Your task to perform on an android device: Open eBay Image 0: 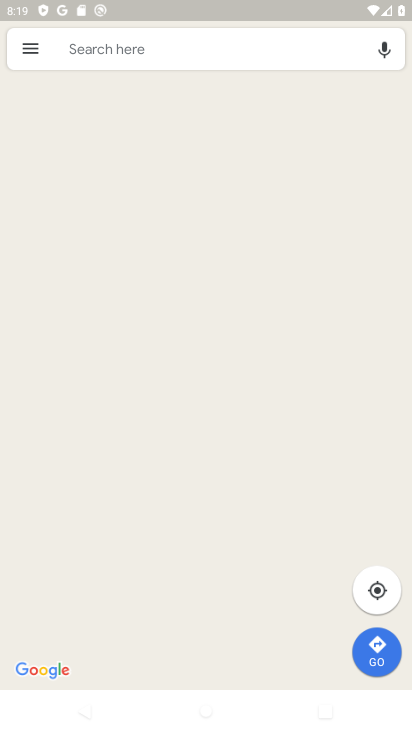
Step 0: drag from (288, 599) to (193, 184)
Your task to perform on an android device: Open eBay Image 1: 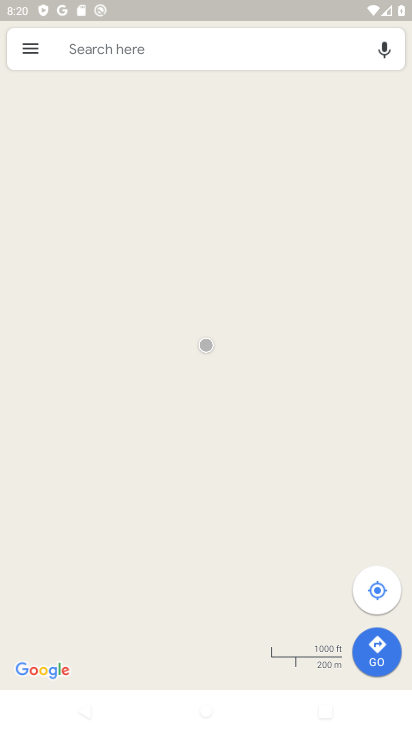
Step 1: press back button
Your task to perform on an android device: Open eBay Image 2: 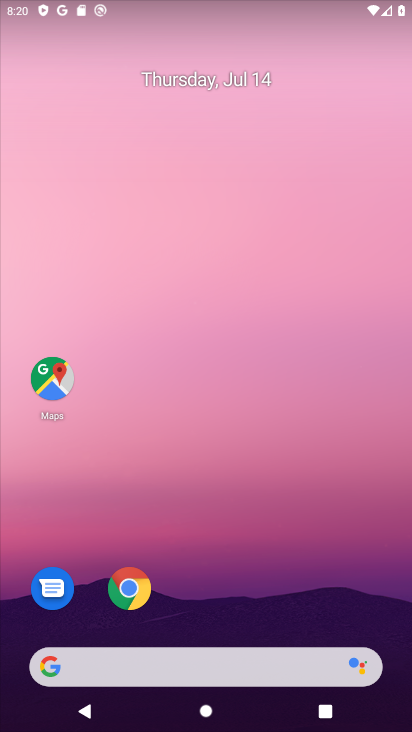
Step 2: drag from (218, 348) to (198, 216)
Your task to perform on an android device: Open eBay Image 3: 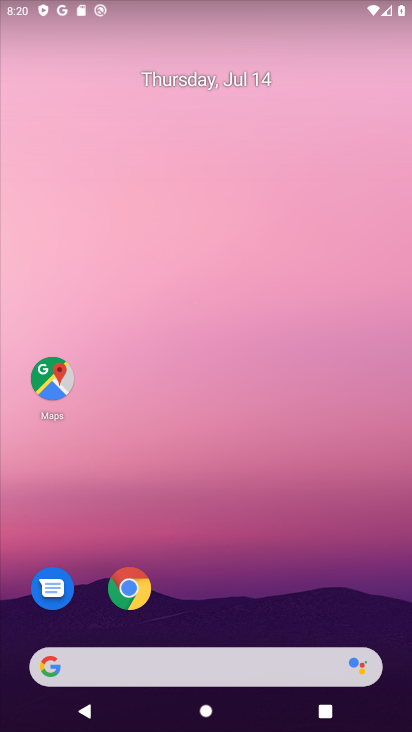
Step 3: drag from (222, 606) to (178, 182)
Your task to perform on an android device: Open eBay Image 4: 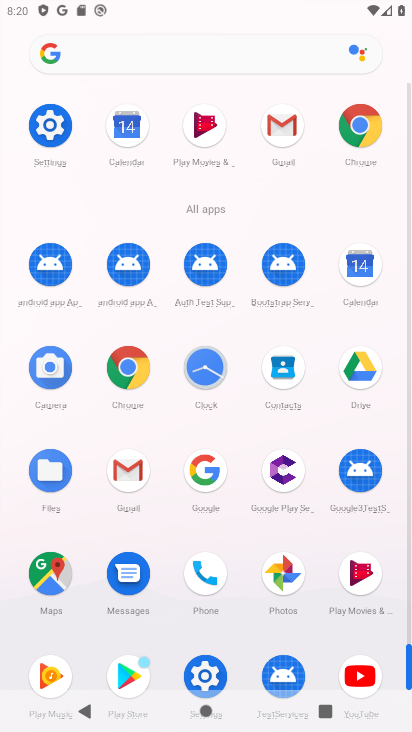
Step 4: click (375, 117)
Your task to perform on an android device: Open eBay Image 5: 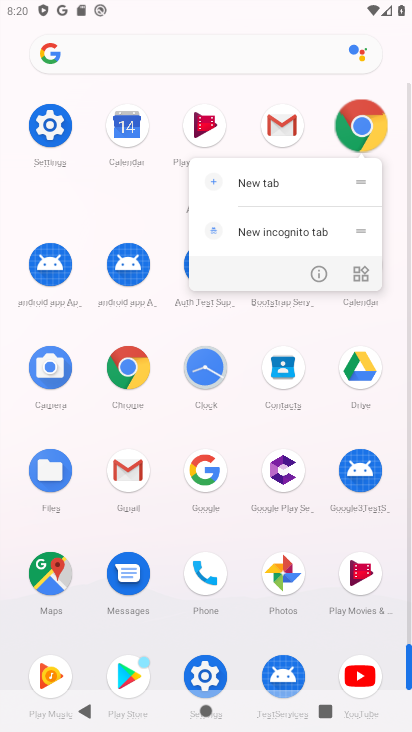
Step 5: click (374, 116)
Your task to perform on an android device: Open eBay Image 6: 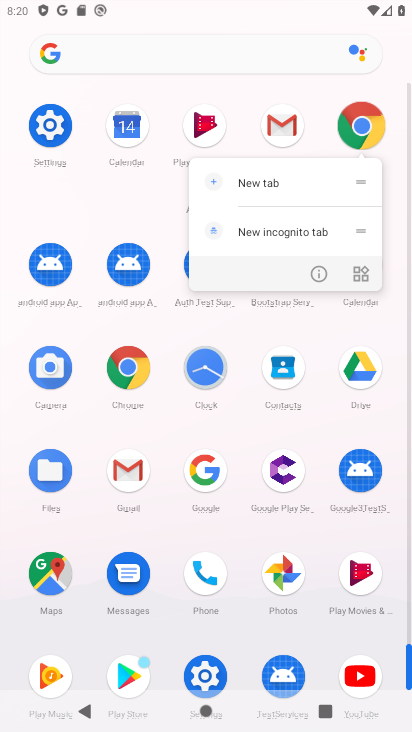
Step 6: click (374, 116)
Your task to perform on an android device: Open eBay Image 7: 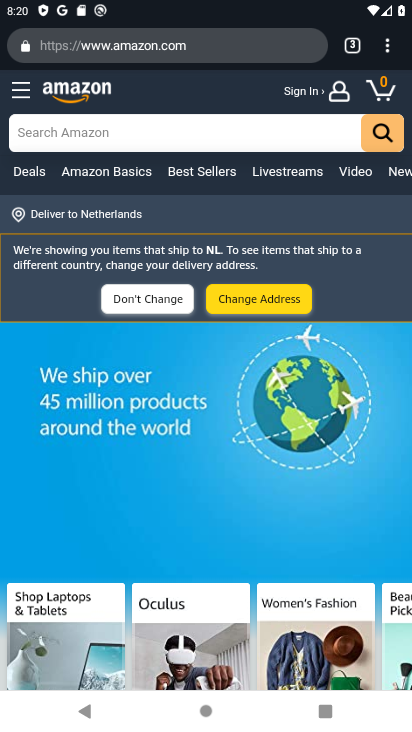
Step 7: click (261, 96)
Your task to perform on an android device: Open eBay Image 8: 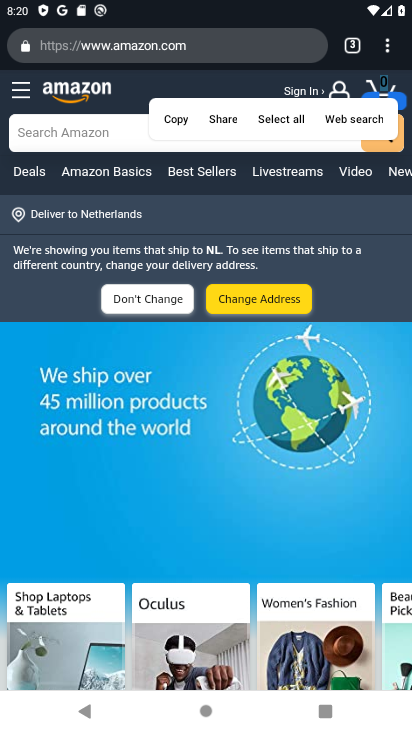
Step 8: drag from (381, 42) to (235, 80)
Your task to perform on an android device: Open eBay Image 9: 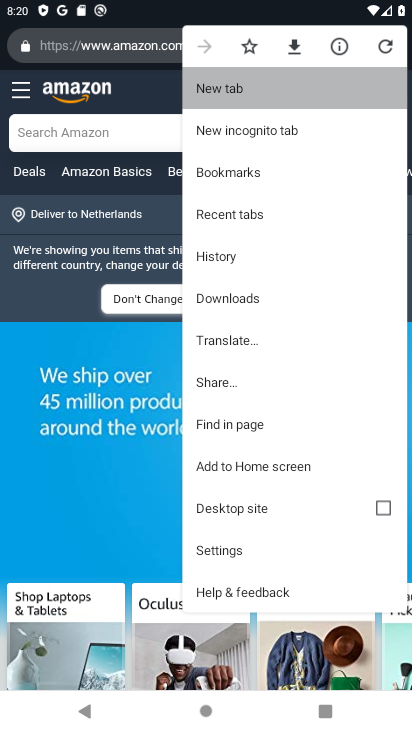
Step 9: click (247, 88)
Your task to perform on an android device: Open eBay Image 10: 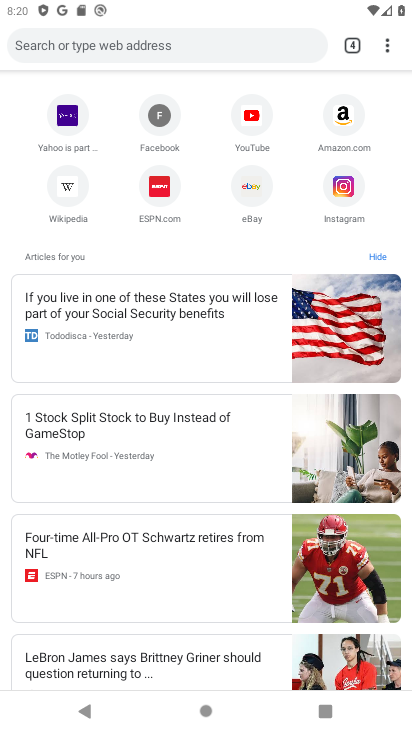
Step 10: click (253, 186)
Your task to perform on an android device: Open eBay Image 11: 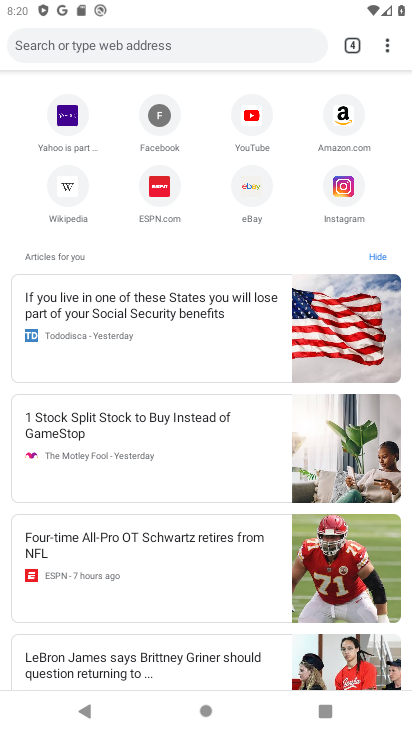
Step 11: click (249, 186)
Your task to perform on an android device: Open eBay Image 12: 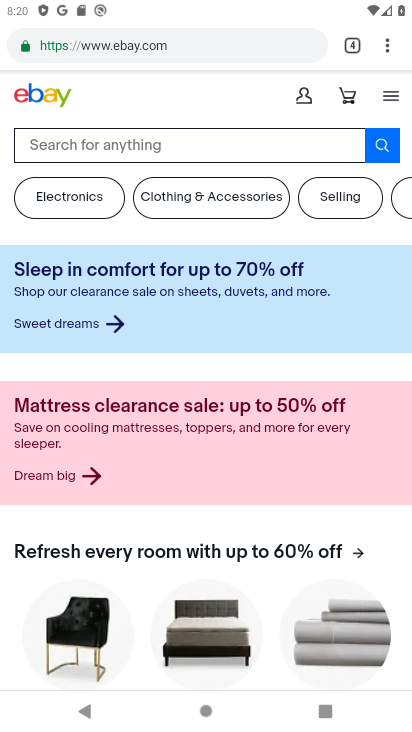
Step 12: task complete